Your task to perform on an android device: Is it going to rain tomorrow? Image 0: 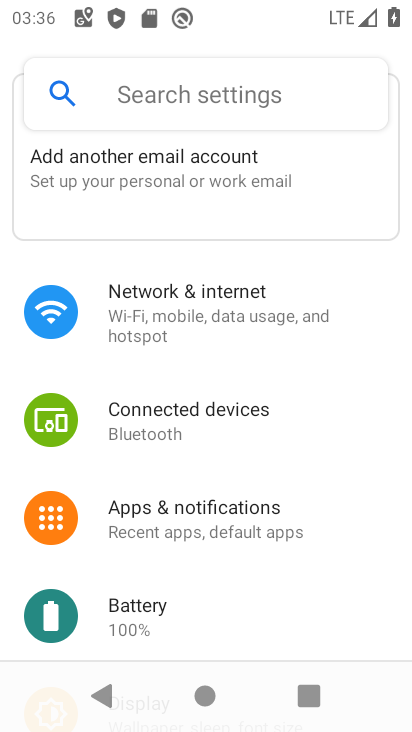
Step 0: press home button
Your task to perform on an android device: Is it going to rain tomorrow? Image 1: 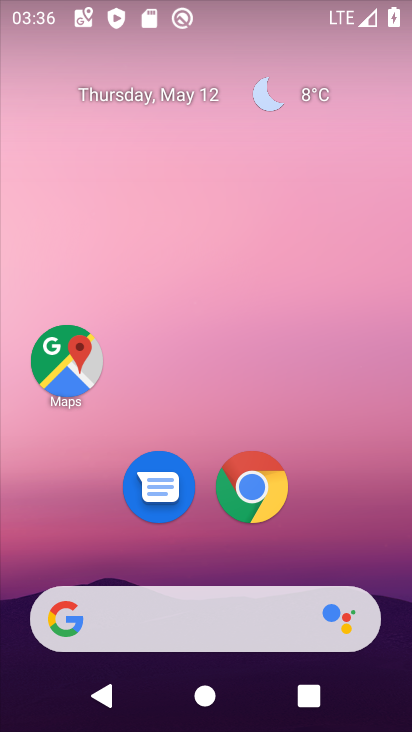
Step 1: click (303, 102)
Your task to perform on an android device: Is it going to rain tomorrow? Image 2: 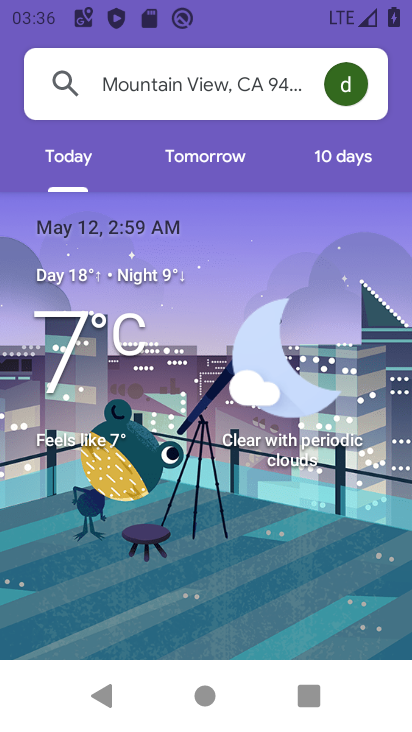
Step 2: click (197, 151)
Your task to perform on an android device: Is it going to rain tomorrow? Image 3: 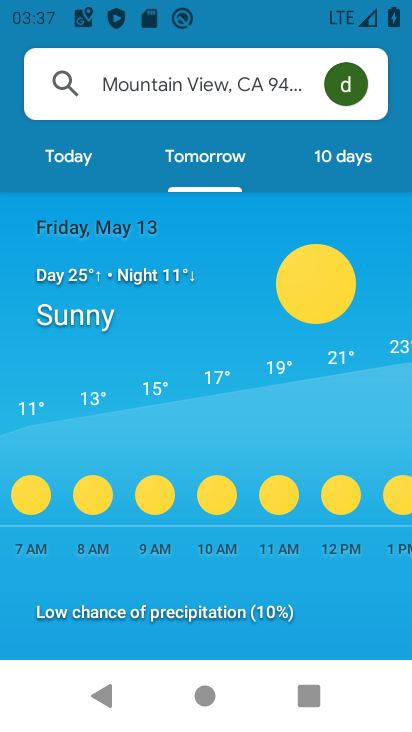
Step 3: task complete